Your task to perform on an android device: check battery use Image 0: 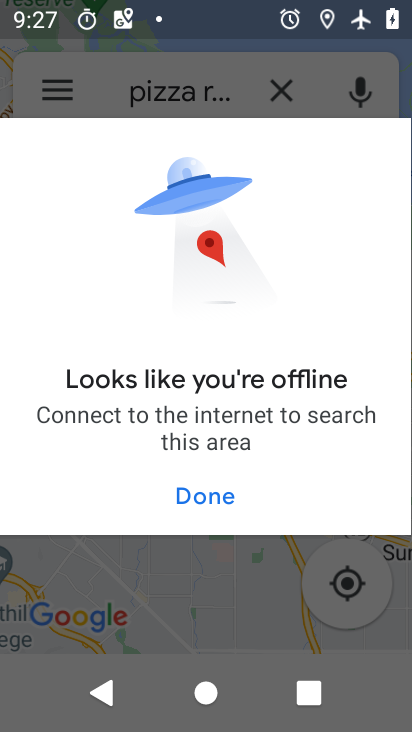
Step 0: press home button
Your task to perform on an android device: check battery use Image 1: 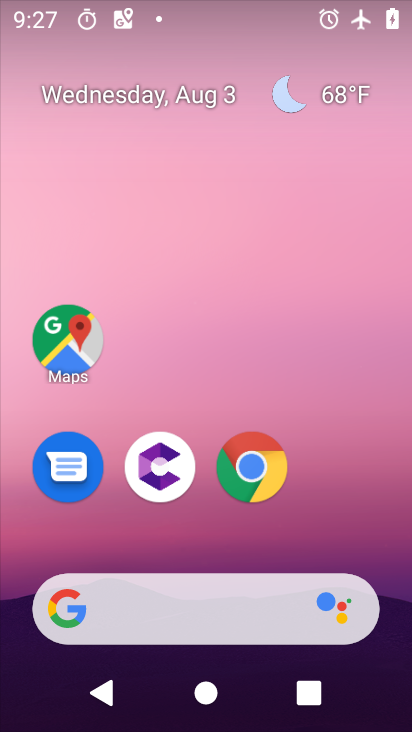
Step 1: drag from (375, 490) to (297, 33)
Your task to perform on an android device: check battery use Image 2: 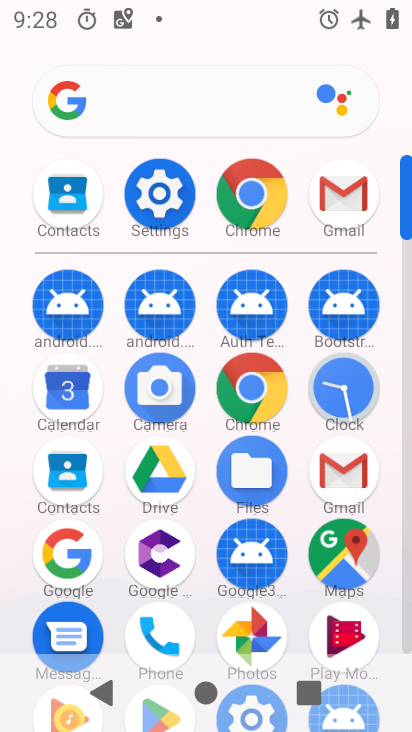
Step 2: click (158, 190)
Your task to perform on an android device: check battery use Image 3: 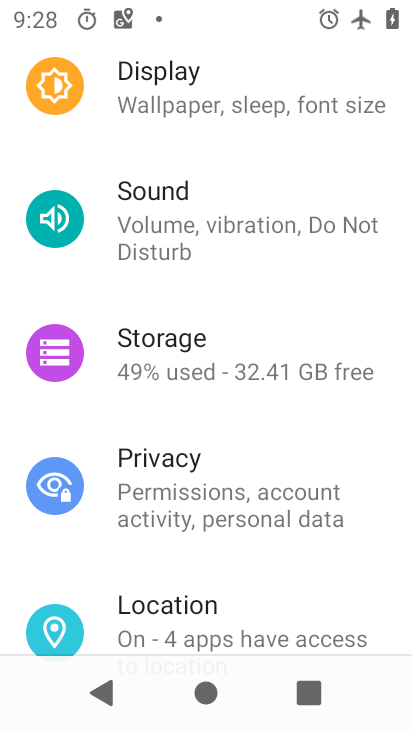
Step 3: drag from (282, 115) to (314, 536)
Your task to perform on an android device: check battery use Image 4: 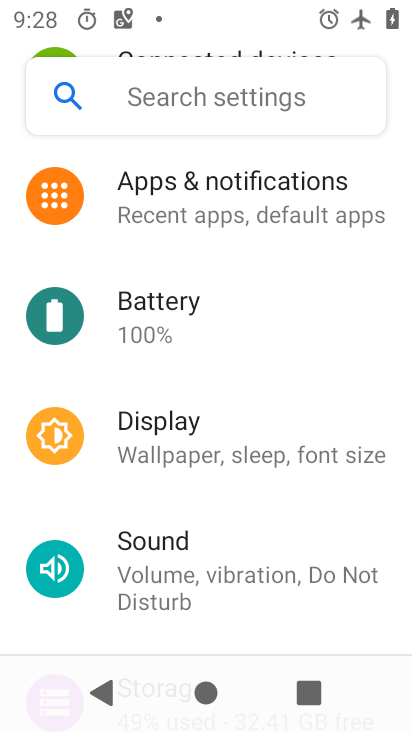
Step 4: click (176, 323)
Your task to perform on an android device: check battery use Image 5: 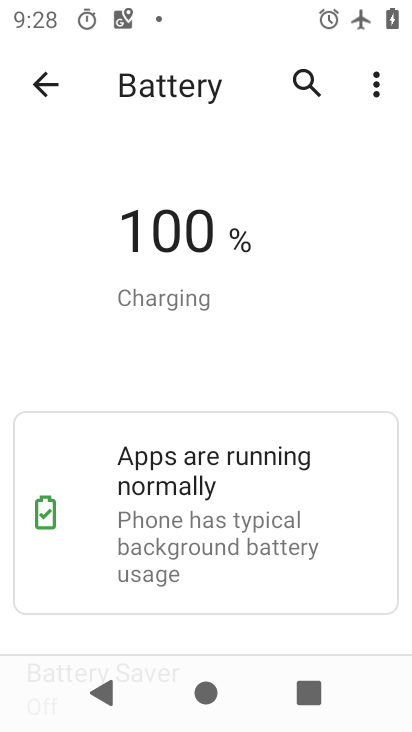
Step 5: click (377, 76)
Your task to perform on an android device: check battery use Image 6: 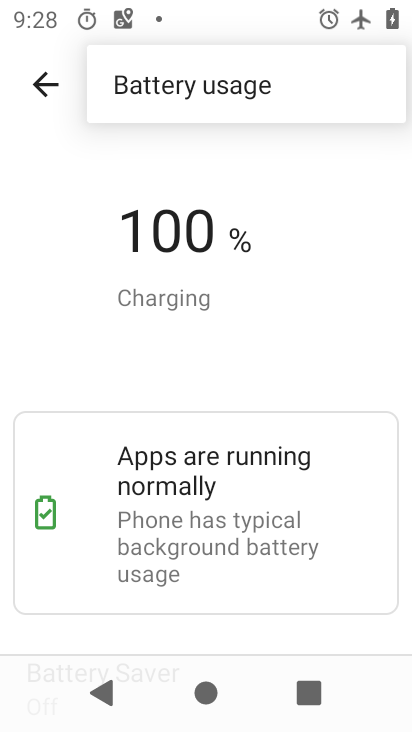
Step 6: click (290, 93)
Your task to perform on an android device: check battery use Image 7: 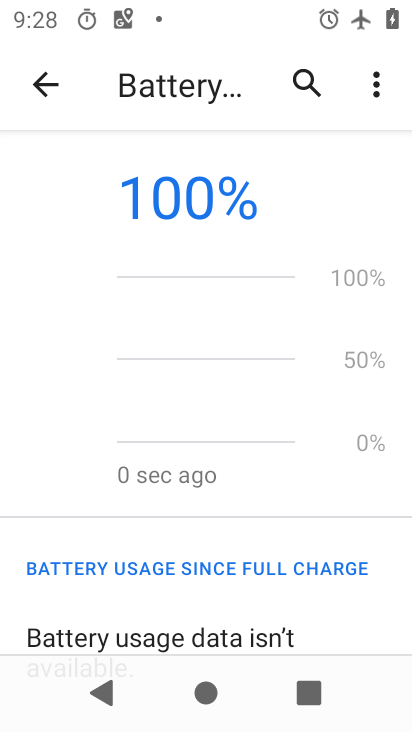
Step 7: task complete